Your task to perform on an android device: Go to Android settings Image 0: 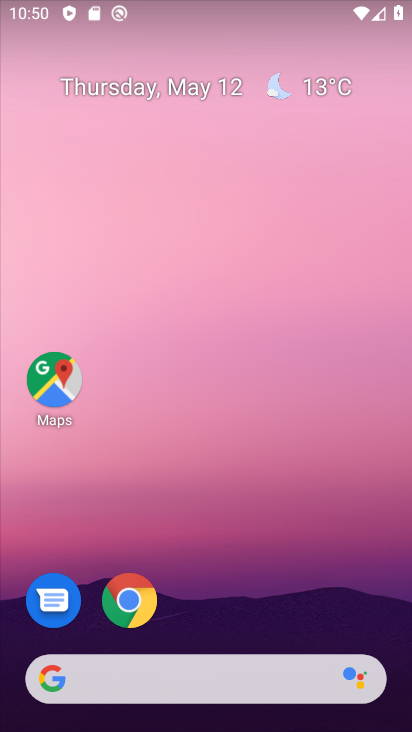
Step 0: drag from (377, 613) to (350, 138)
Your task to perform on an android device: Go to Android settings Image 1: 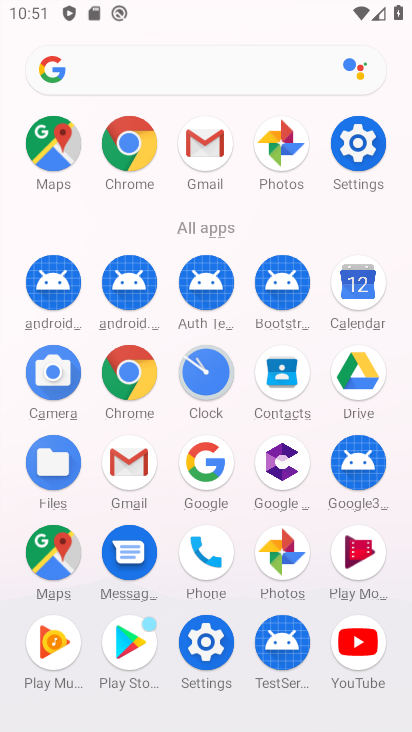
Step 1: click (205, 639)
Your task to perform on an android device: Go to Android settings Image 2: 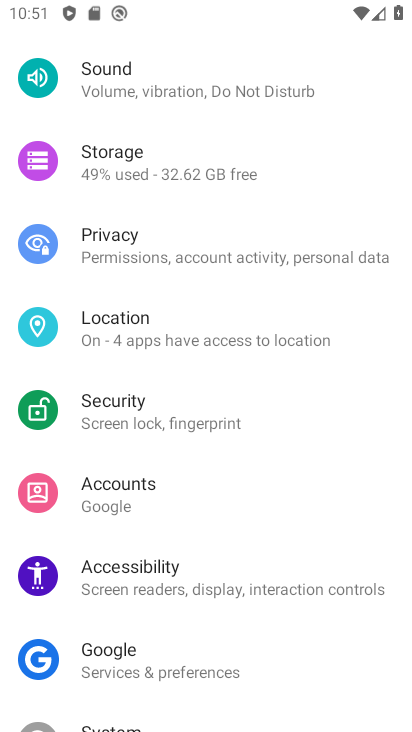
Step 2: drag from (261, 632) to (277, 285)
Your task to perform on an android device: Go to Android settings Image 3: 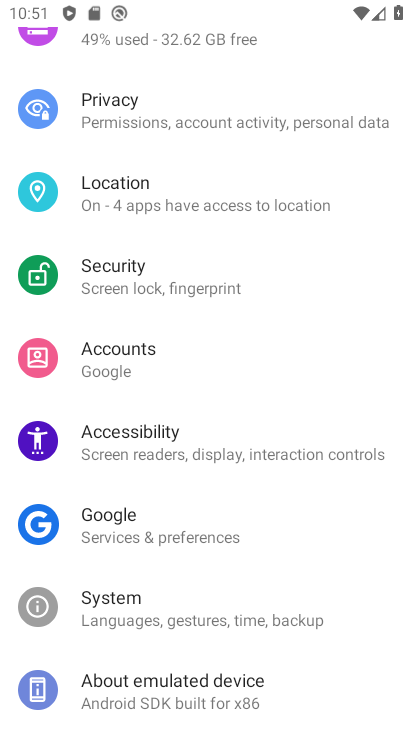
Step 3: click (159, 683)
Your task to perform on an android device: Go to Android settings Image 4: 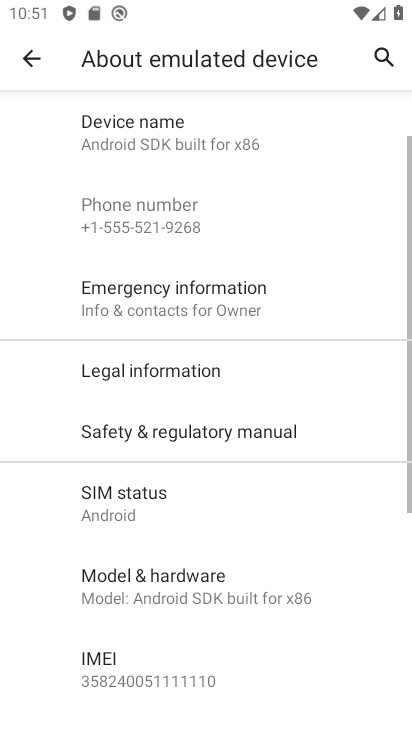
Step 4: task complete